Your task to perform on an android device: Open ESPN.com Image 0: 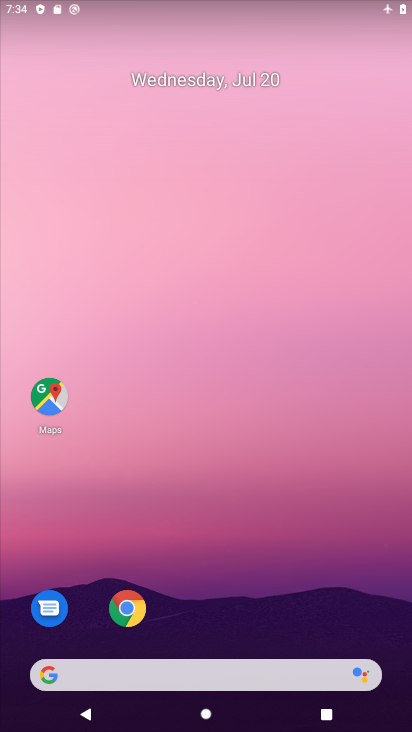
Step 0: drag from (347, 592) to (281, 239)
Your task to perform on an android device: Open ESPN.com Image 1: 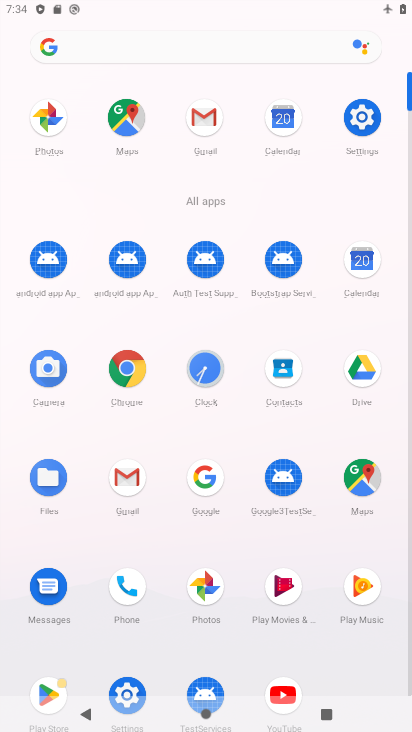
Step 1: click (130, 373)
Your task to perform on an android device: Open ESPN.com Image 2: 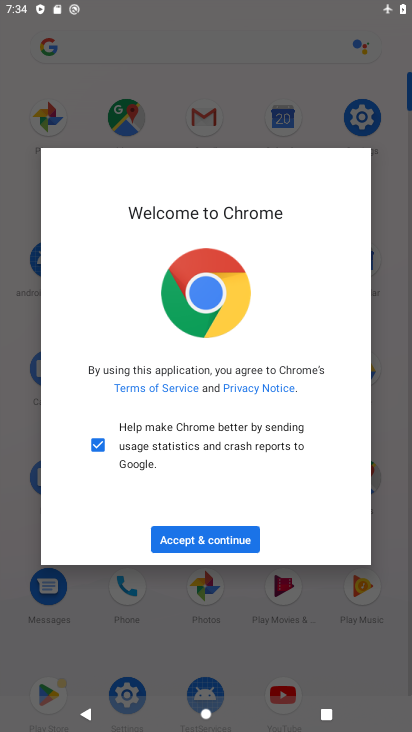
Step 2: click (216, 538)
Your task to perform on an android device: Open ESPN.com Image 3: 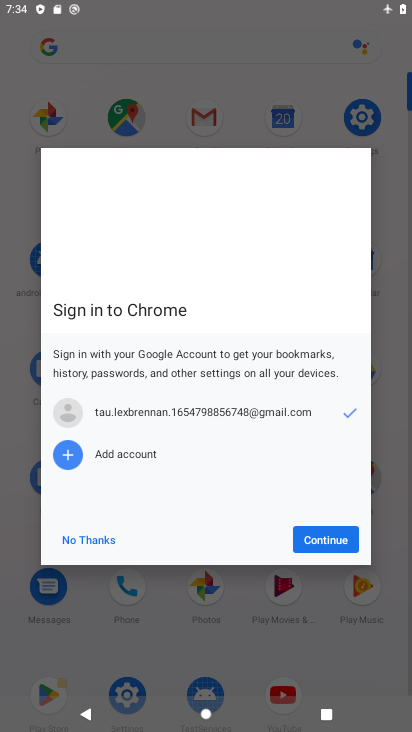
Step 3: click (299, 538)
Your task to perform on an android device: Open ESPN.com Image 4: 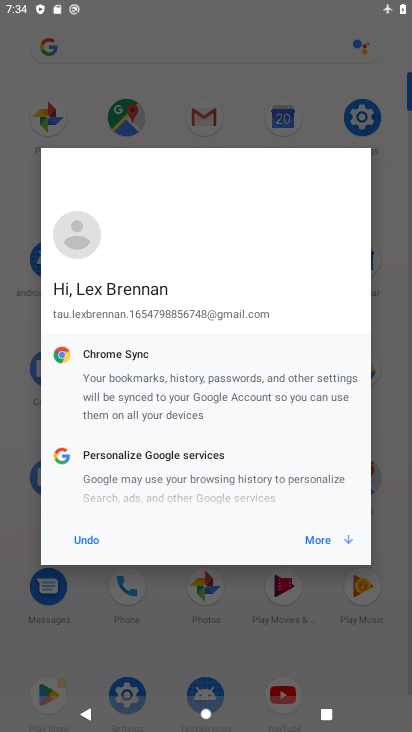
Step 4: click (316, 547)
Your task to perform on an android device: Open ESPN.com Image 5: 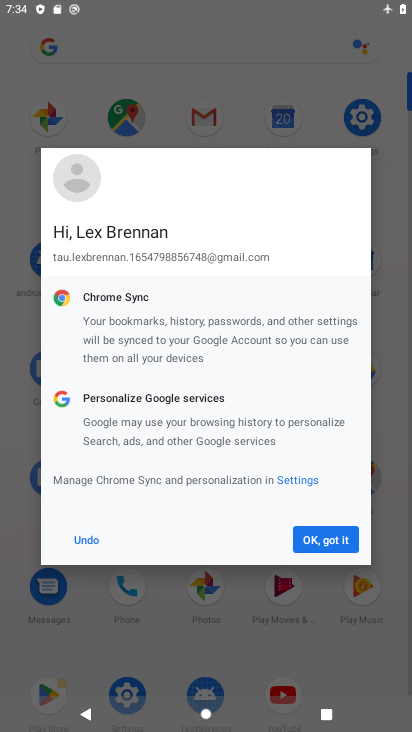
Step 5: click (316, 547)
Your task to perform on an android device: Open ESPN.com Image 6: 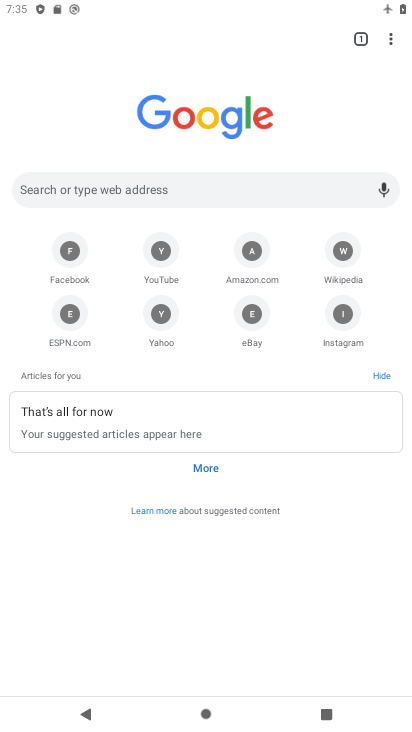
Step 6: click (64, 312)
Your task to perform on an android device: Open ESPN.com Image 7: 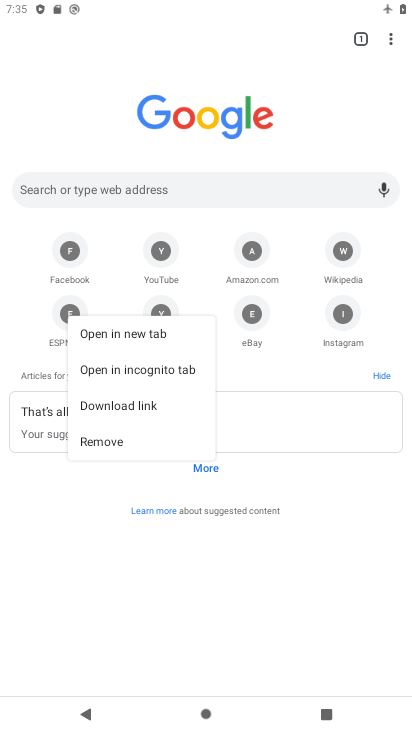
Step 7: click (68, 302)
Your task to perform on an android device: Open ESPN.com Image 8: 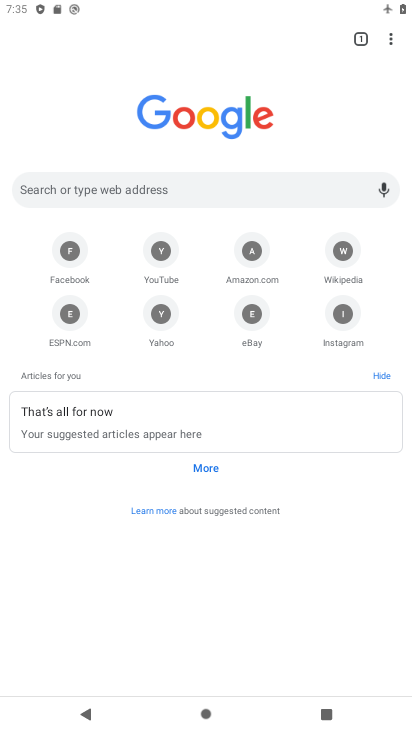
Step 8: click (72, 309)
Your task to perform on an android device: Open ESPN.com Image 9: 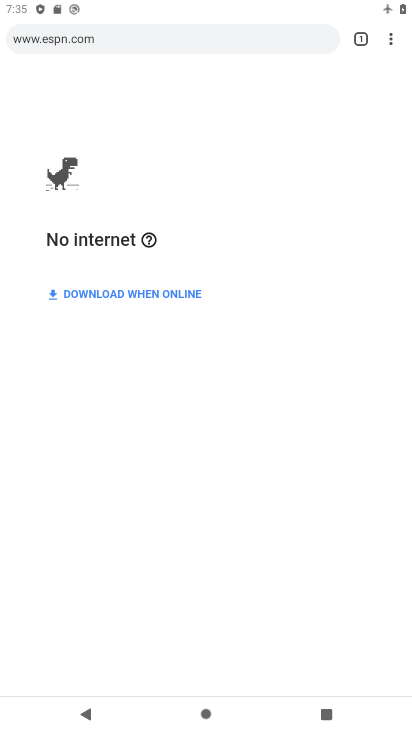
Step 9: task complete